Your task to perform on an android device: turn on sleep mode Image 0: 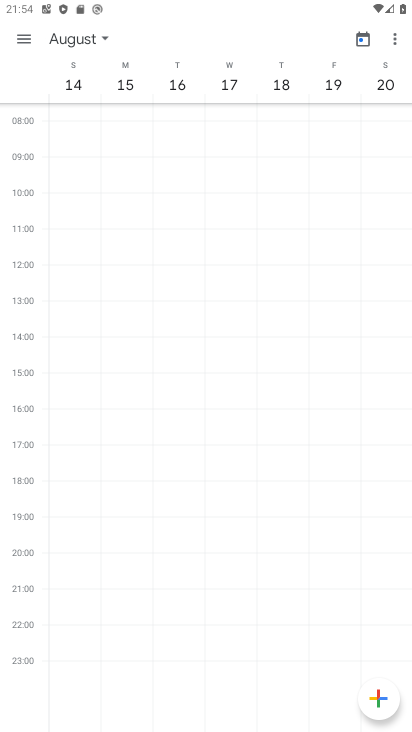
Step 0: press home button
Your task to perform on an android device: turn on sleep mode Image 1: 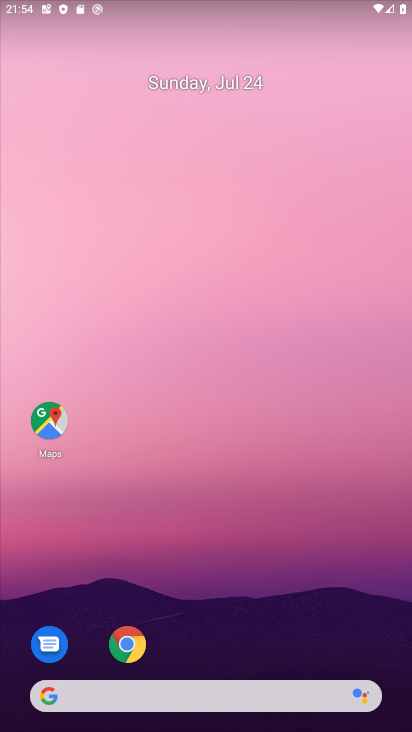
Step 1: drag from (249, 642) to (231, 106)
Your task to perform on an android device: turn on sleep mode Image 2: 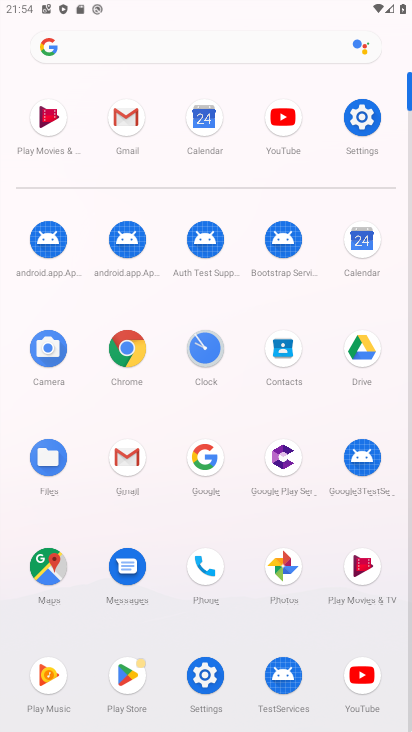
Step 2: click (203, 673)
Your task to perform on an android device: turn on sleep mode Image 3: 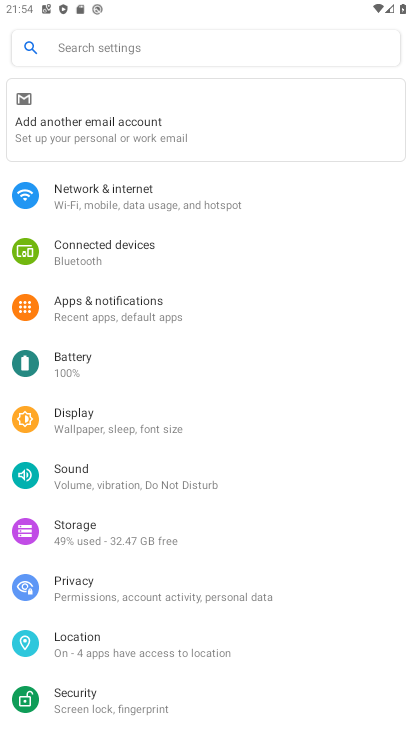
Step 3: click (79, 419)
Your task to perform on an android device: turn on sleep mode Image 4: 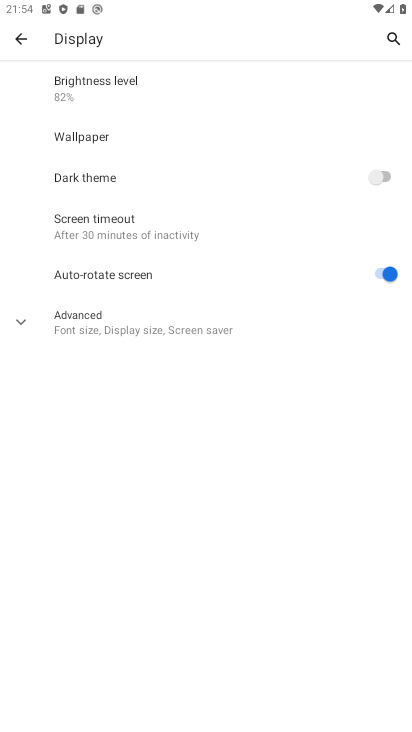
Step 4: click (13, 319)
Your task to perform on an android device: turn on sleep mode Image 5: 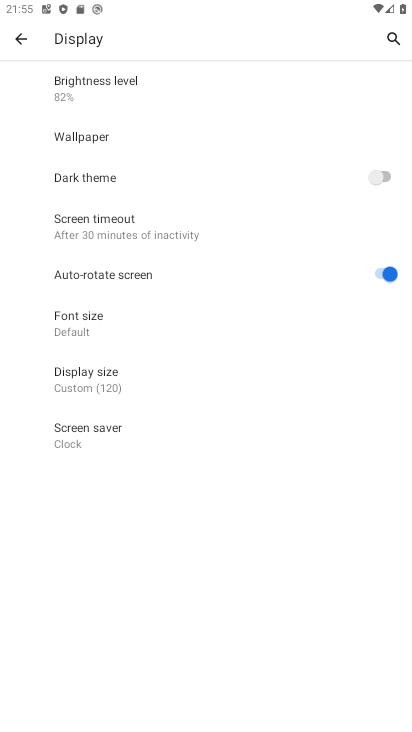
Step 5: task complete